Your task to perform on an android device: Open the map Image 0: 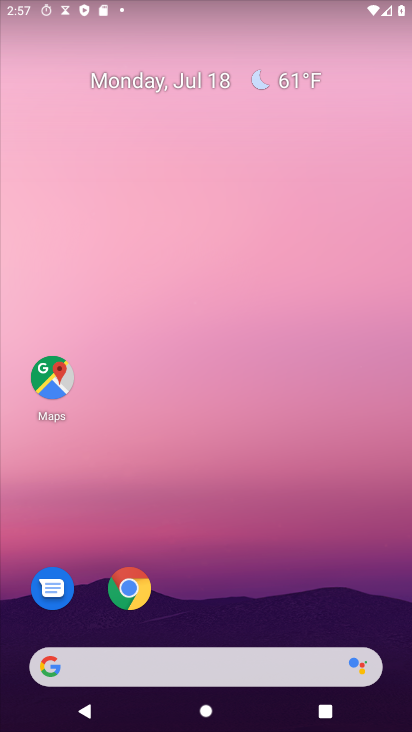
Step 0: drag from (249, 555) to (221, 29)
Your task to perform on an android device: Open the map Image 1: 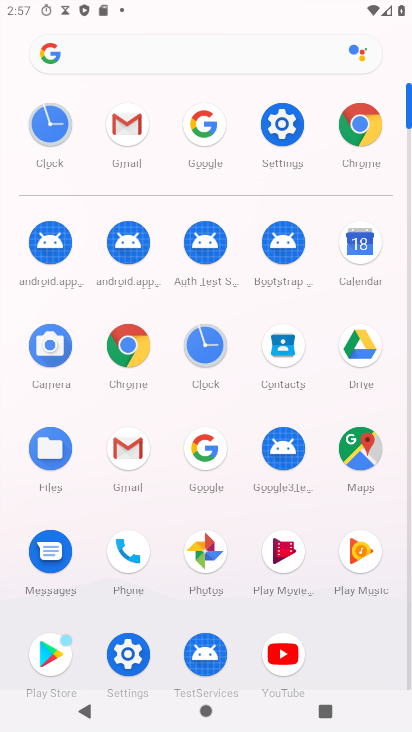
Step 1: click (394, 450)
Your task to perform on an android device: Open the map Image 2: 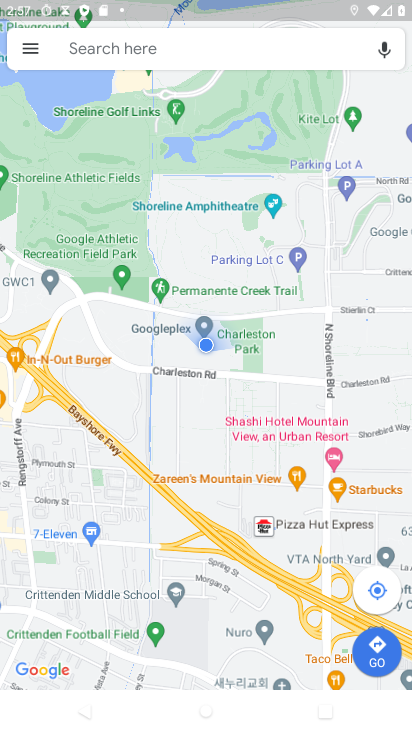
Step 2: task complete